Your task to perform on an android device: Turn on the flashlight Image 0: 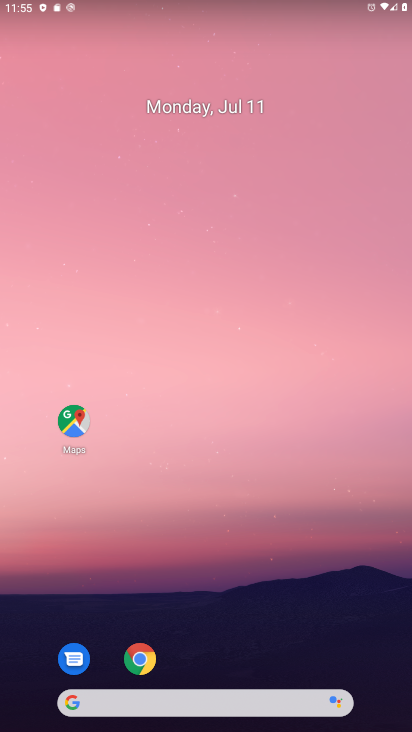
Step 0: drag from (204, 573) to (318, 21)
Your task to perform on an android device: Turn on the flashlight Image 1: 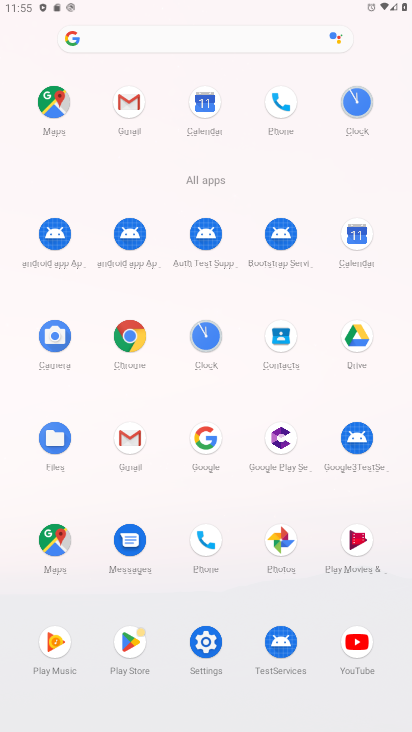
Step 1: click (202, 645)
Your task to perform on an android device: Turn on the flashlight Image 2: 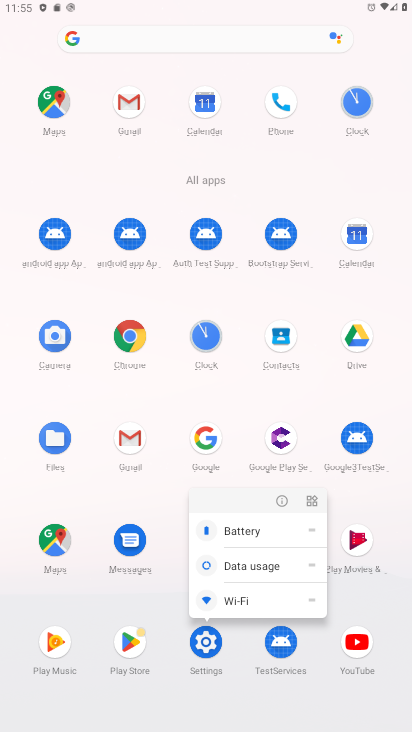
Step 2: click (279, 496)
Your task to perform on an android device: Turn on the flashlight Image 3: 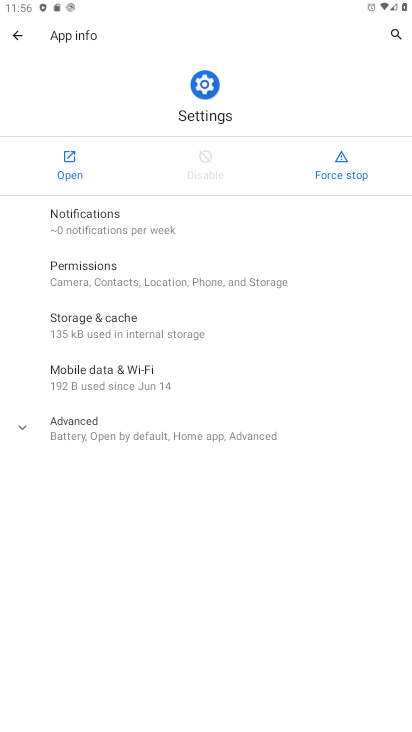
Step 3: click (78, 150)
Your task to perform on an android device: Turn on the flashlight Image 4: 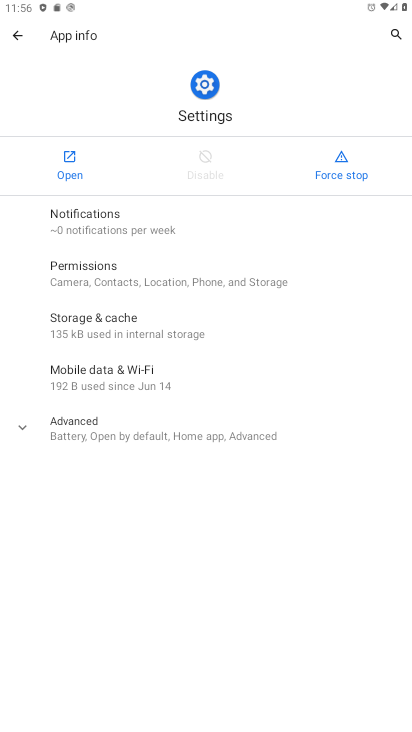
Step 4: click (77, 151)
Your task to perform on an android device: Turn on the flashlight Image 5: 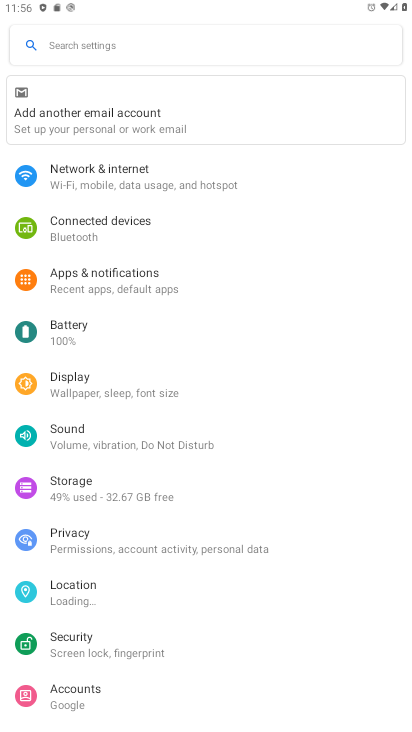
Step 5: click (223, 31)
Your task to perform on an android device: Turn on the flashlight Image 6: 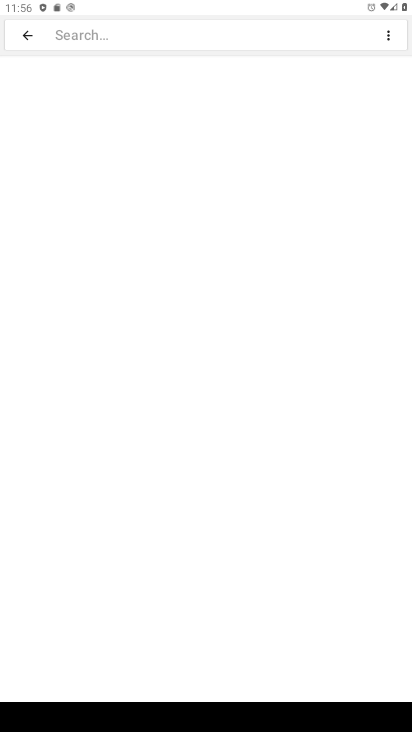
Step 6: type "flashlight"
Your task to perform on an android device: Turn on the flashlight Image 7: 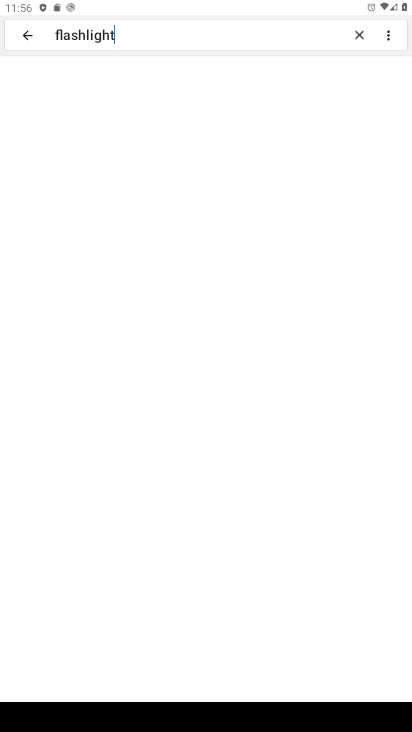
Step 7: type ""
Your task to perform on an android device: Turn on the flashlight Image 8: 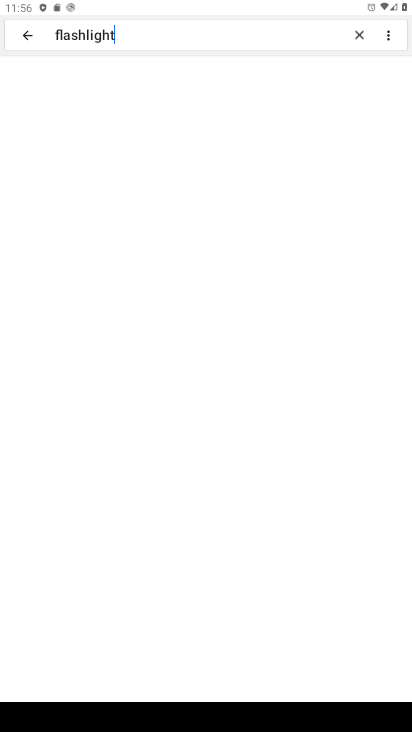
Step 8: click (128, 87)
Your task to perform on an android device: Turn on the flashlight Image 9: 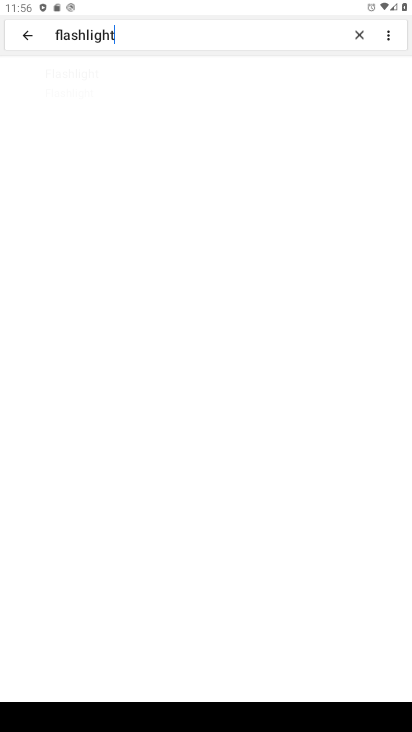
Step 9: click (103, 76)
Your task to perform on an android device: Turn on the flashlight Image 10: 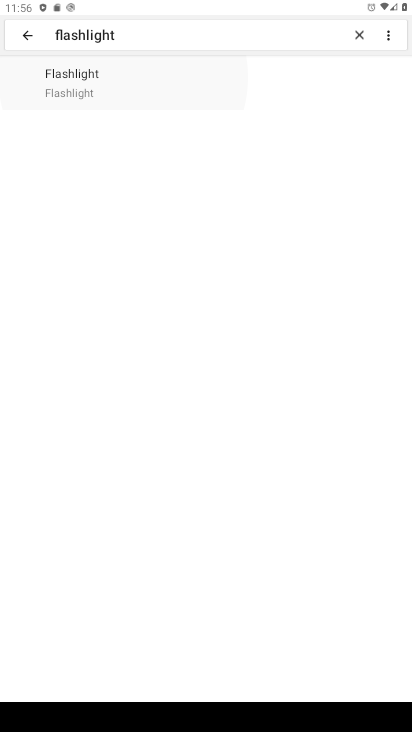
Step 10: click (103, 76)
Your task to perform on an android device: Turn on the flashlight Image 11: 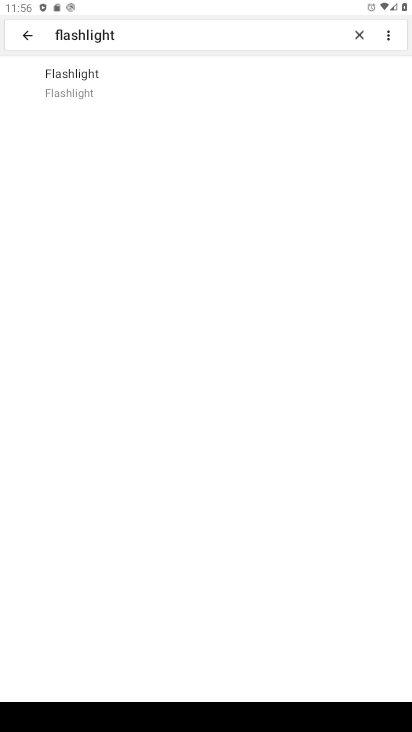
Step 11: click (103, 76)
Your task to perform on an android device: Turn on the flashlight Image 12: 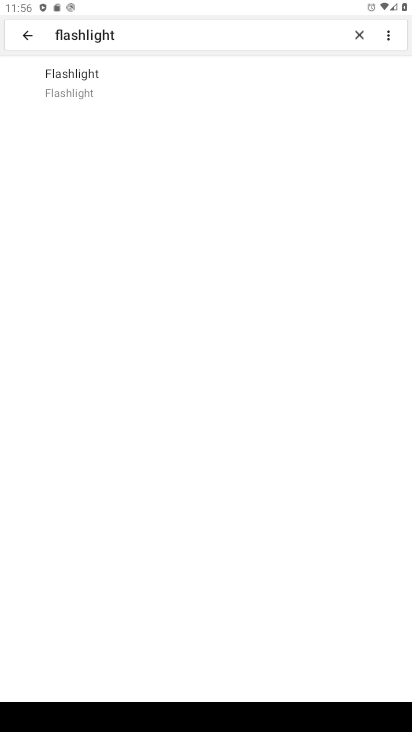
Step 12: click (129, 83)
Your task to perform on an android device: Turn on the flashlight Image 13: 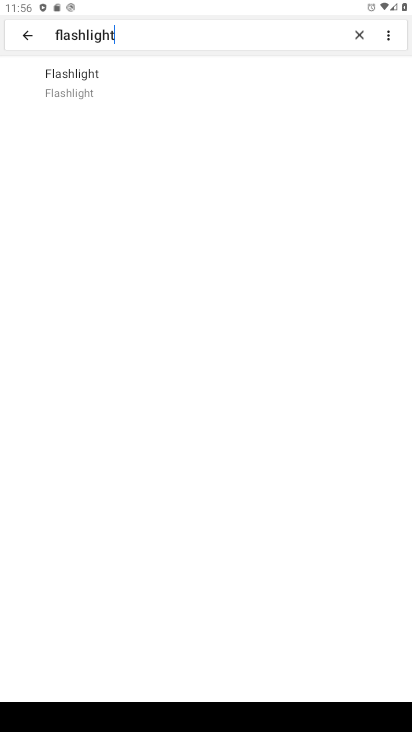
Step 13: click (129, 83)
Your task to perform on an android device: Turn on the flashlight Image 14: 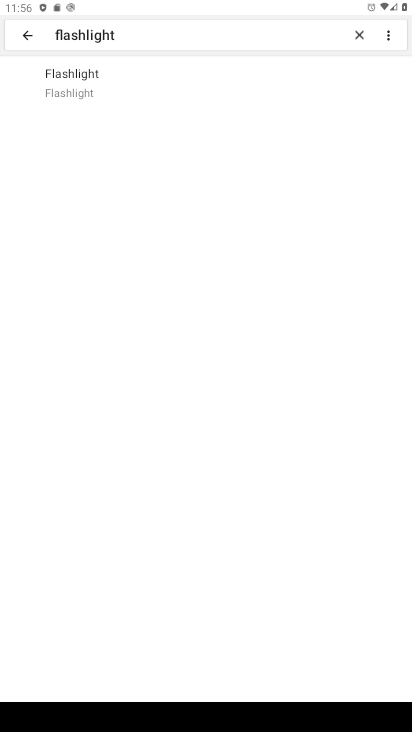
Step 14: click (131, 83)
Your task to perform on an android device: Turn on the flashlight Image 15: 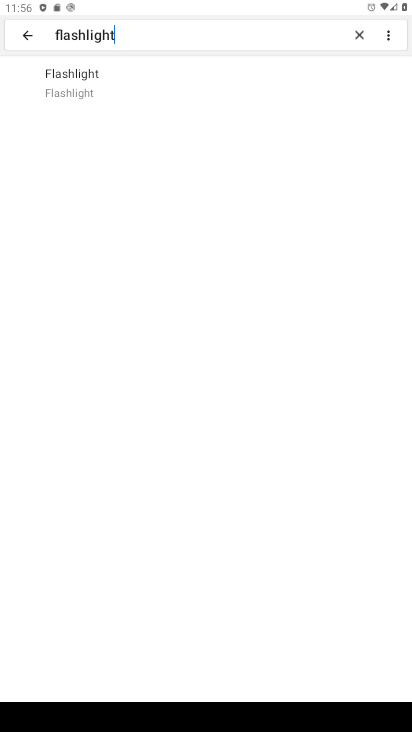
Step 15: task complete